Your task to perform on an android device: When is my next appointment? Image 0: 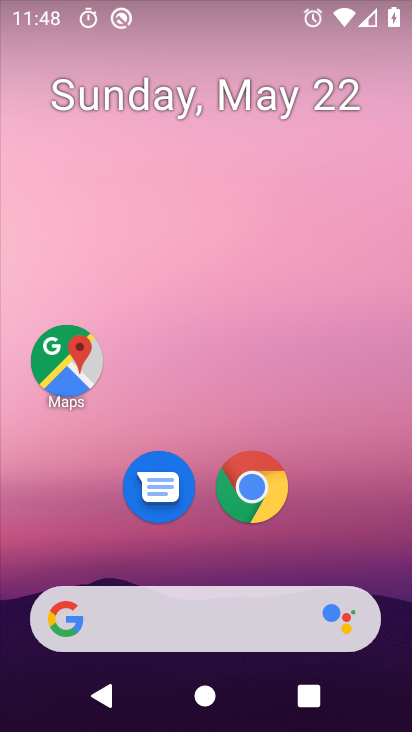
Step 0: drag from (345, 519) to (327, 197)
Your task to perform on an android device: When is my next appointment? Image 1: 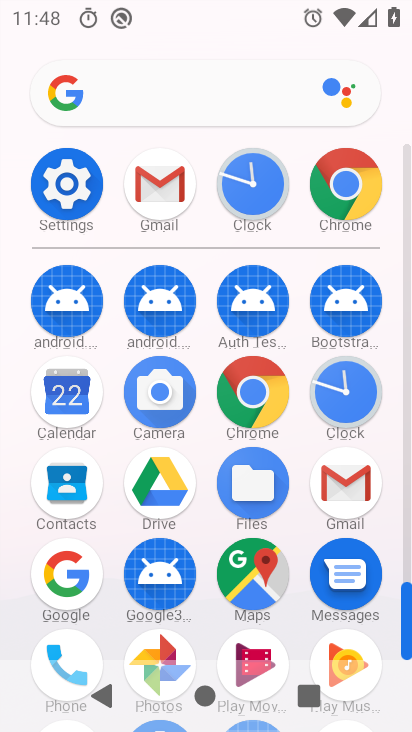
Step 1: click (246, 403)
Your task to perform on an android device: When is my next appointment? Image 2: 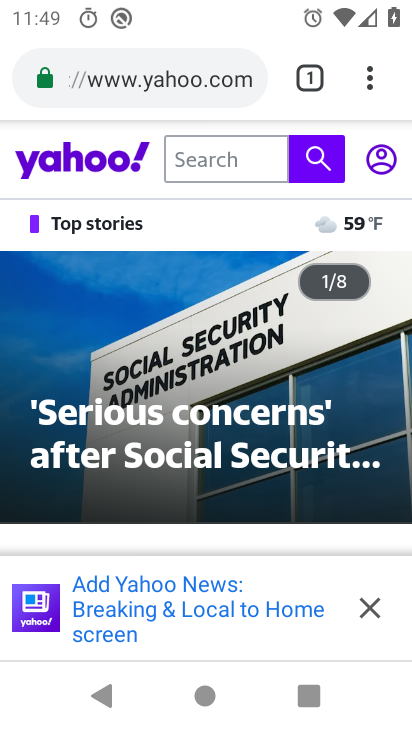
Step 2: click (133, 102)
Your task to perform on an android device: When is my next appointment? Image 3: 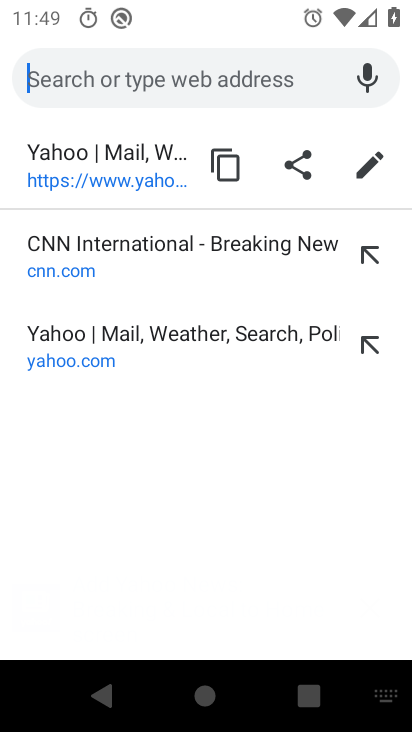
Step 3: type "when is my nest appointment "
Your task to perform on an android device: When is my next appointment? Image 4: 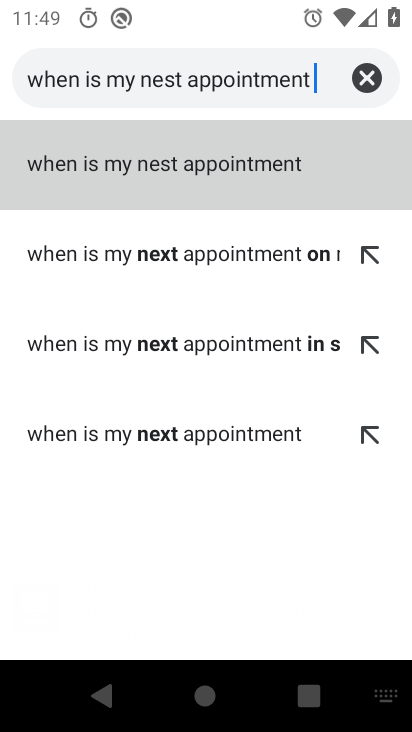
Step 4: click (176, 443)
Your task to perform on an android device: When is my next appointment? Image 5: 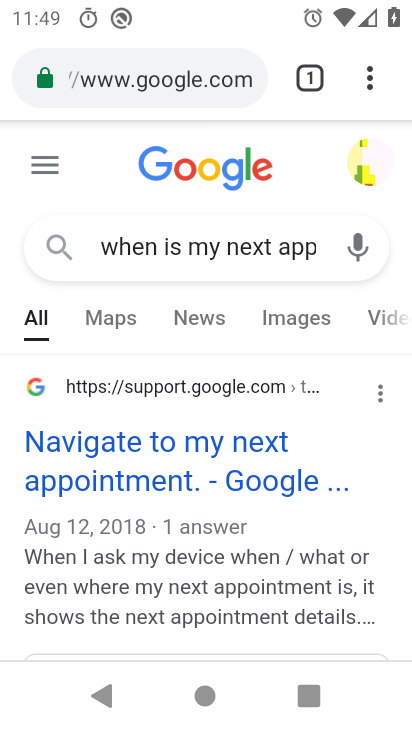
Step 5: task complete